Your task to perform on an android device: snooze an email in the gmail app Image 0: 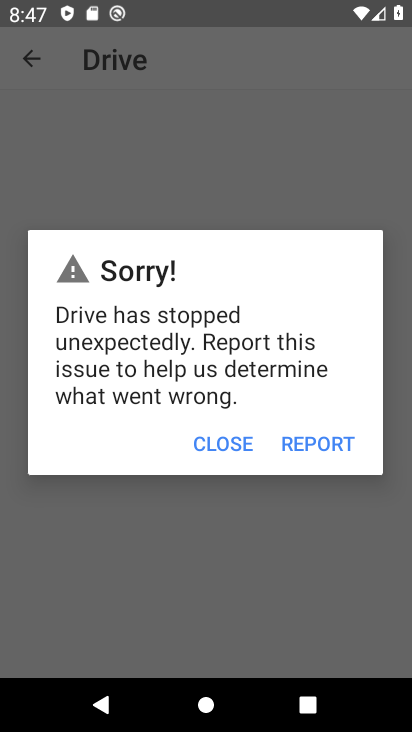
Step 0: press home button
Your task to perform on an android device: snooze an email in the gmail app Image 1: 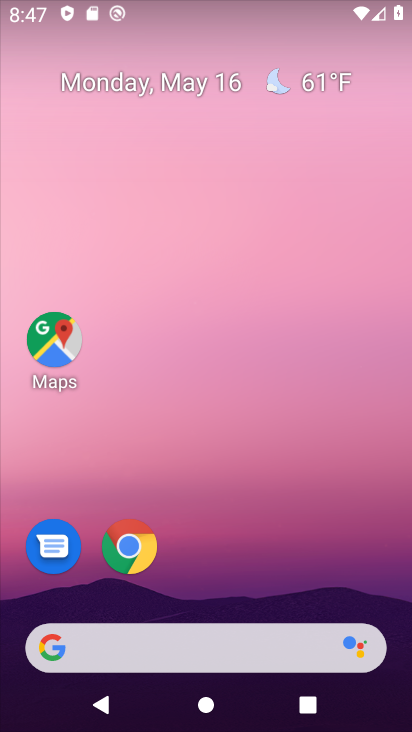
Step 1: drag from (338, 587) to (267, 241)
Your task to perform on an android device: snooze an email in the gmail app Image 2: 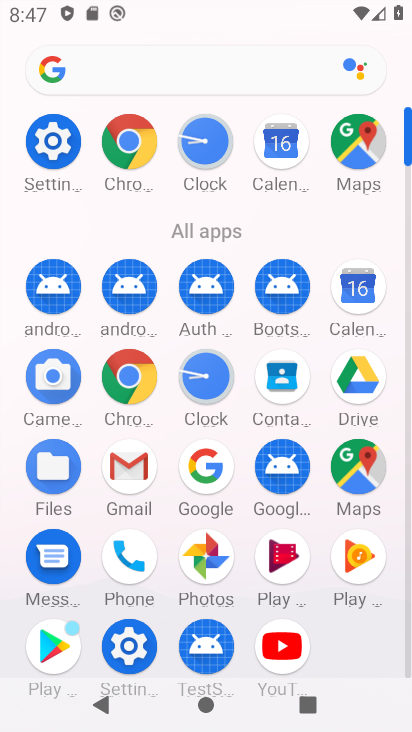
Step 2: click (120, 471)
Your task to perform on an android device: snooze an email in the gmail app Image 3: 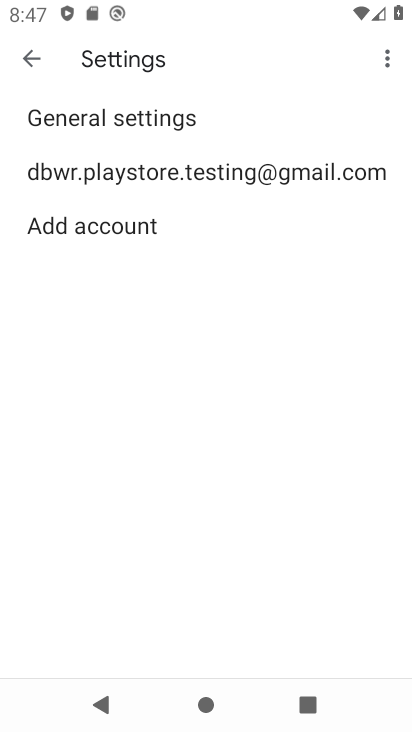
Step 3: click (37, 67)
Your task to perform on an android device: snooze an email in the gmail app Image 4: 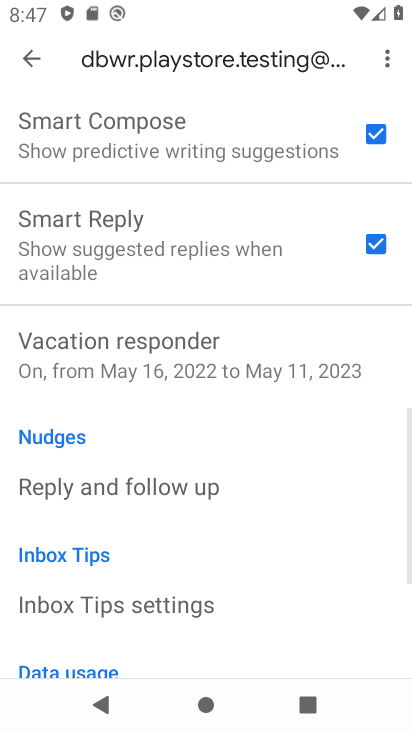
Step 4: click (40, 71)
Your task to perform on an android device: snooze an email in the gmail app Image 5: 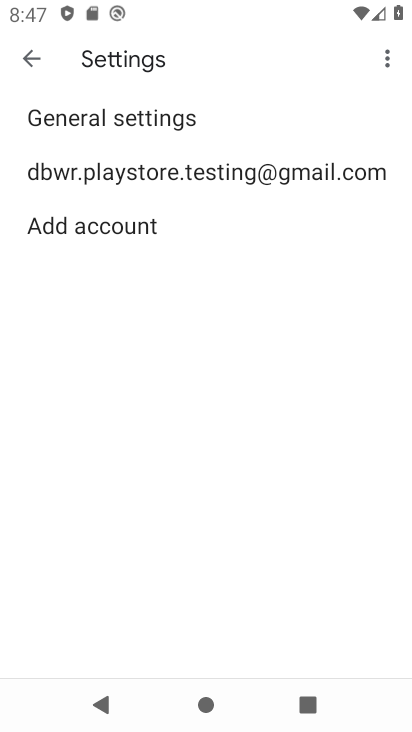
Step 5: click (40, 71)
Your task to perform on an android device: snooze an email in the gmail app Image 6: 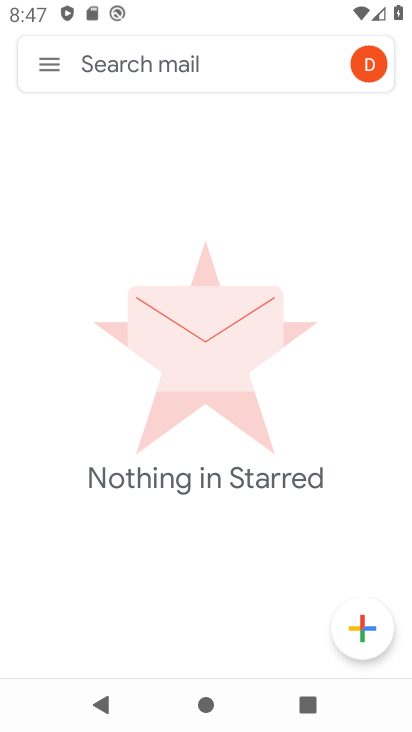
Step 6: click (50, 70)
Your task to perform on an android device: snooze an email in the gmail app Image 7: 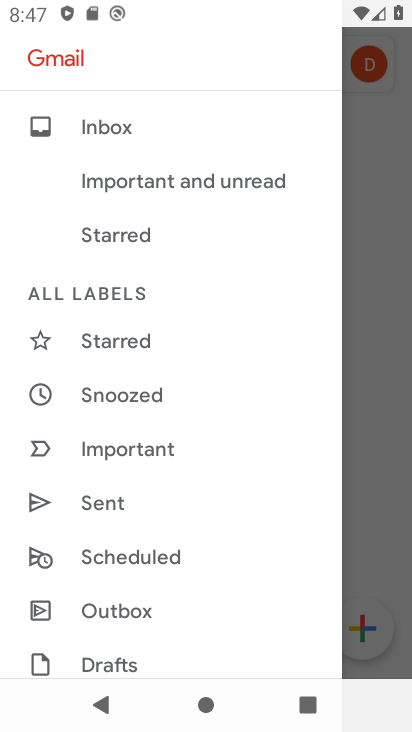
Step 7: drag from (173, 625) to (128, 324)
Your task to perform on an android device: snooze an email in the gmail app Image 8: 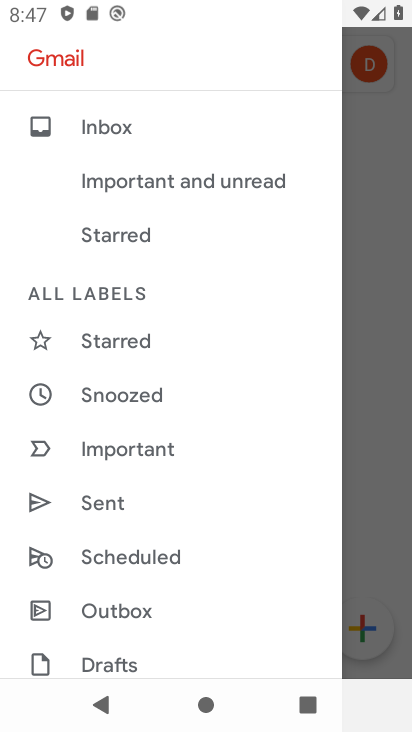
Step 8: drag from (200, 592) to (156, 335)
Your task to perform on an android device: snooze an email in the gmail app Image 9: 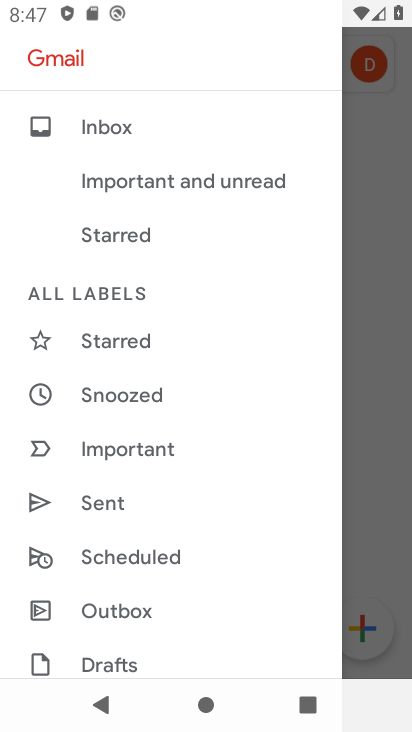
Step 9: drag from (174, 521) to (205, 219)
Your task to perform on an android device: snooze an email in the gmail app Image 10: 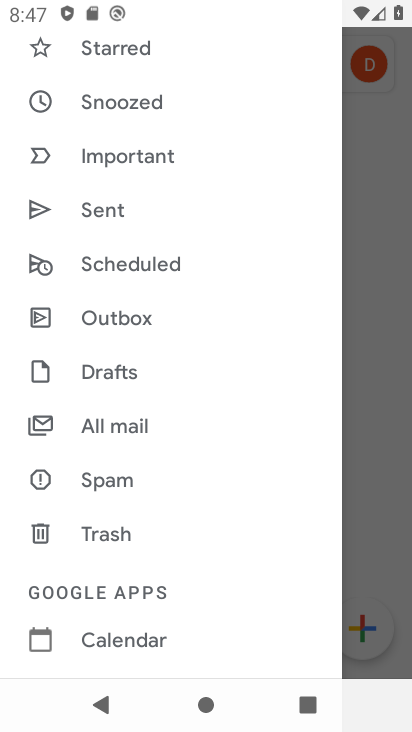
Step 10: click (139, 437)
Your task to perform on an android device: snooze an email in the gmail app Image 11: 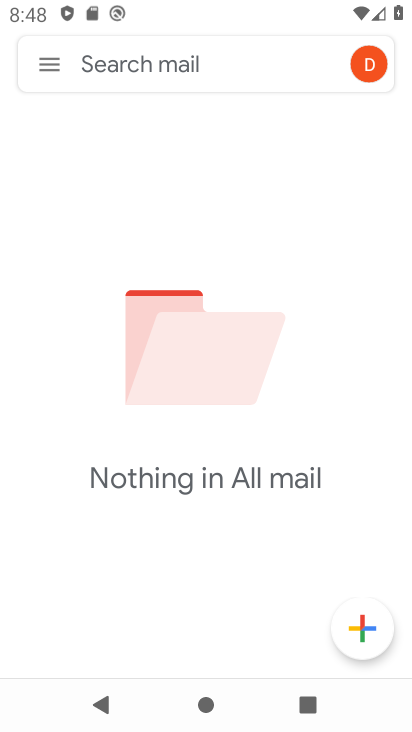
Step 11: task complete